Your task to perform on an android device: Open Google Chrome and open the bookmarks view Image 0: 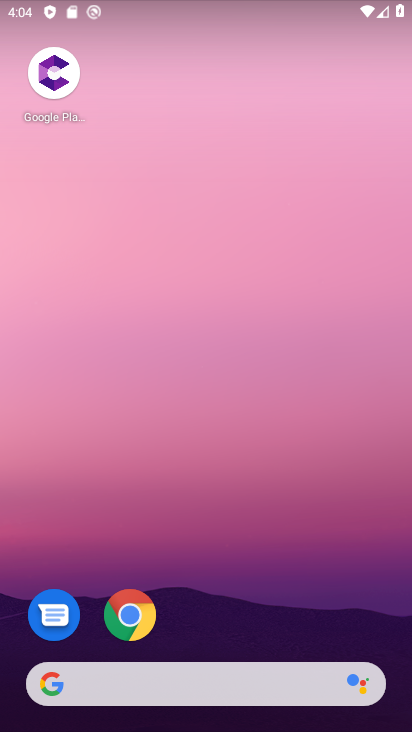
Step 0: click (139, 622)
Your task to perform on an android device: Open Google Chrome and open the bookmarks view Image 1: 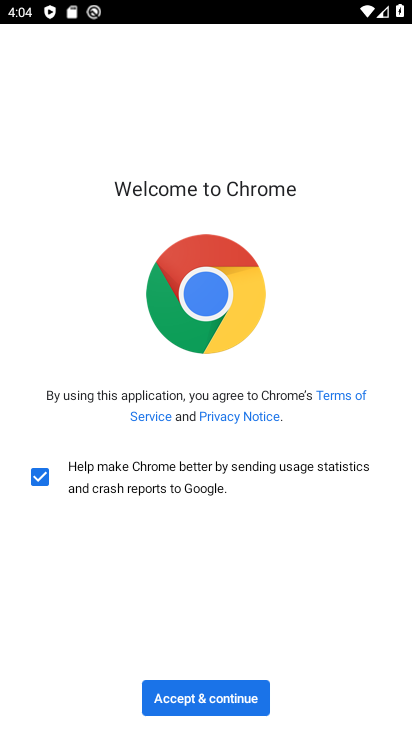
Step 1: click (210, 689)
Your task to perform on an android device: Open Google Chrome and open the bookmarks view Image 2: 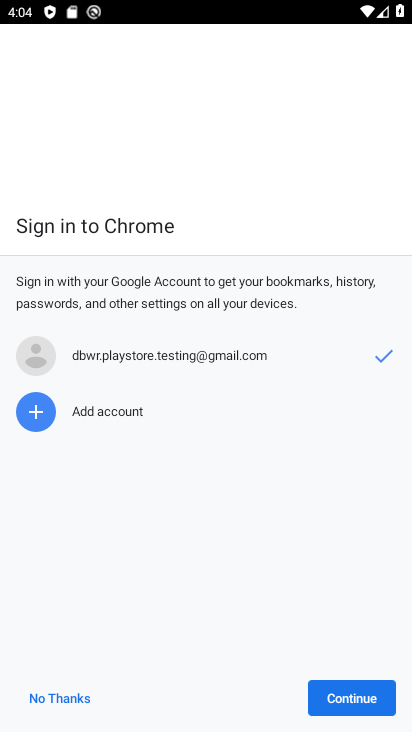
Step 2: click (348, 701)
Your task to perform on an android device: Open Google Chrome and open the bookmarks view Image 3: 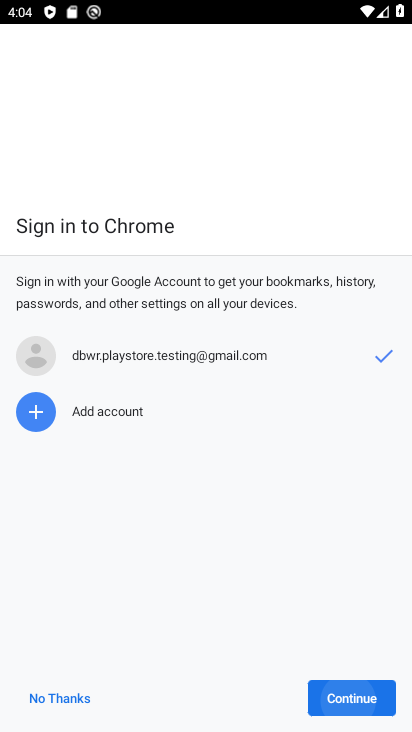
Step 3: click (348, 701)
Your task to perform on an android device: Open Google Chrome and open the bookmarks view Image 4: 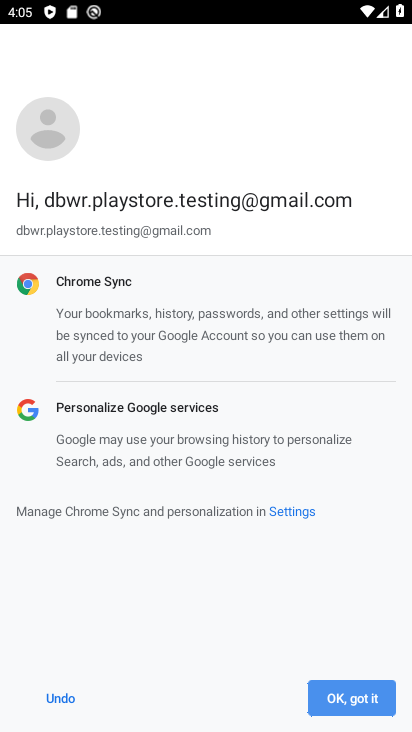
Step 4: click (348, 701)
Your task to perform on an android device: Open Google Chrome and open the bookmarks view Image 5: 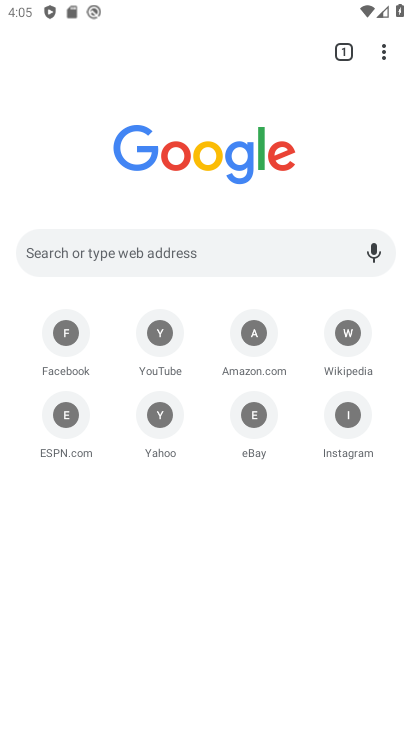
Step 5: click (386, 49)
Your task to perform on an android device: Open Google Chrome and open the bookmarks view Image 6: 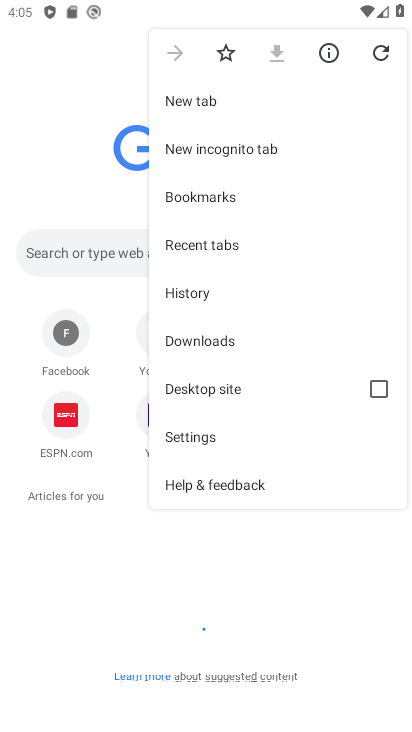
Step 6: click (231, 202)
Your task to perform on an android device: Open Google Chrome and open the bookmarks view Image 7: 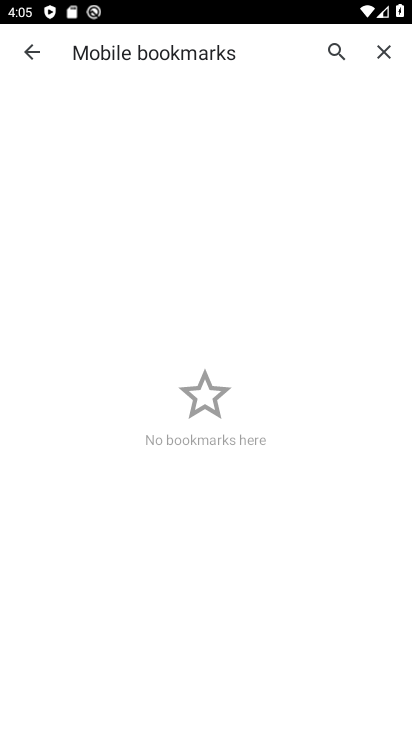
Step 7: task complete